Your task to perform on an android device: change your default location settings in chrome Image 0: 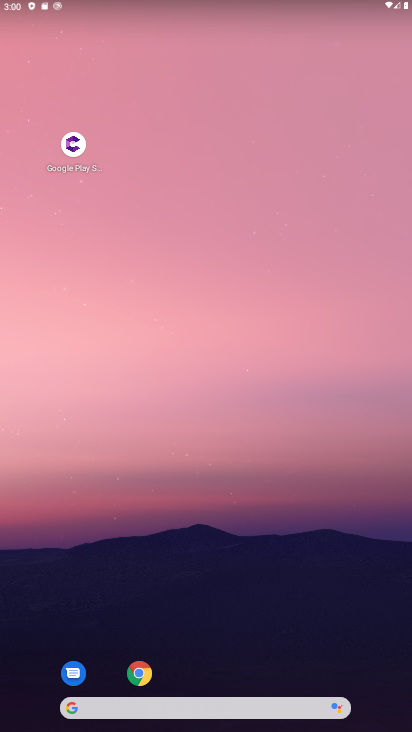
Step 0: click (138, 670)
Your task to perform on an android device: change your default location settings in chrome Image 1: 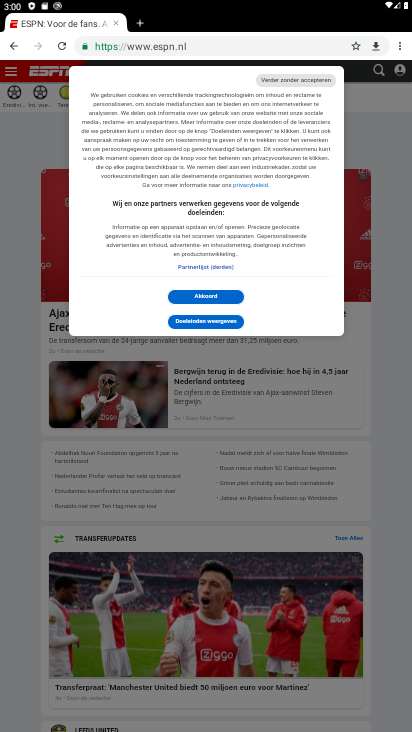
Step 1: drag from (402, 39) to (327, 309)
Your task to perform on an android device: change your default location settings in chrome Image 2: 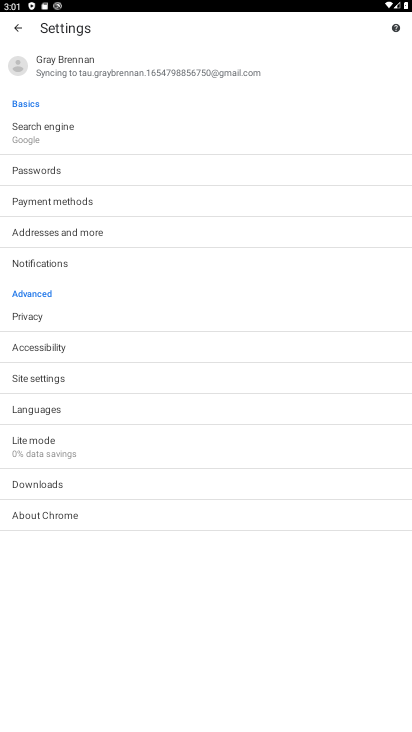
Step 2: click (108, 378)
Your task to perform on an android device: change your default location settings in chrome Image 3: 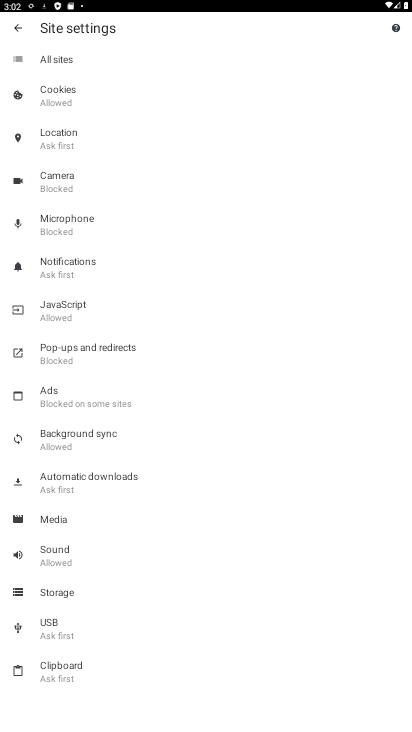
Step 3: click (80, 138)
Your task to perform on an android device: change your default location settings in chrome Image 4: 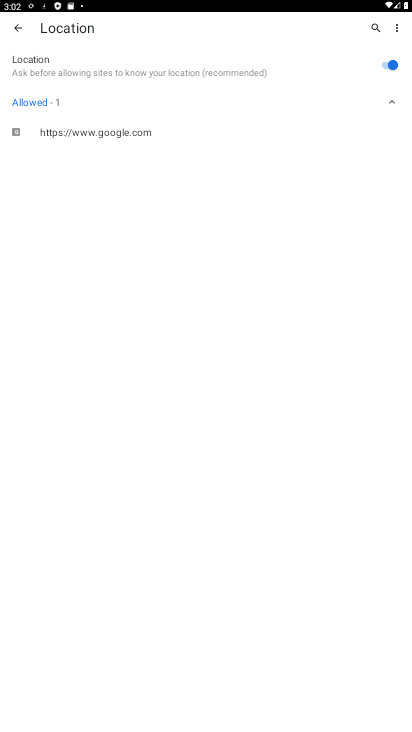
Step 4: click (385, 65)
Your task to perform on an android device: change your default location settings in chrome Image 5: 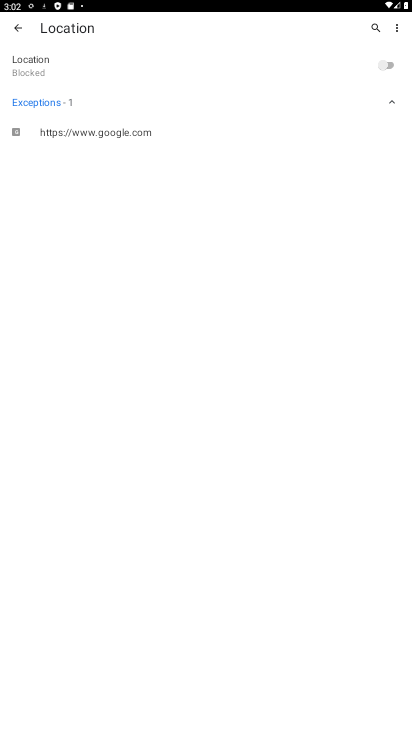
Step 5: task complete